Your task to perform on an android device: toggle wifi Image 0: 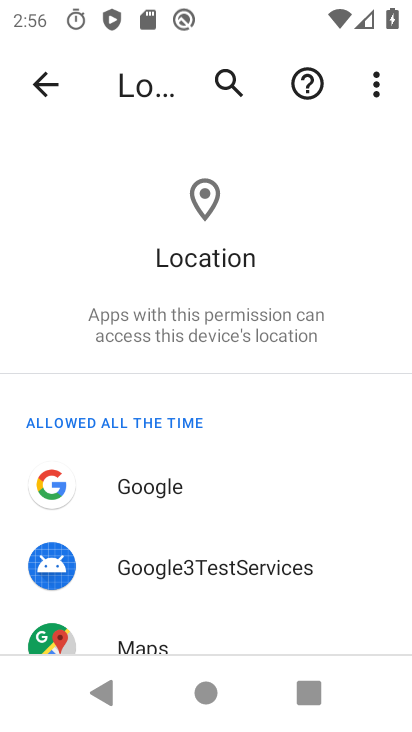
Step 0: press home button
Your task to perform on an android device: toggle wifi Image 1: 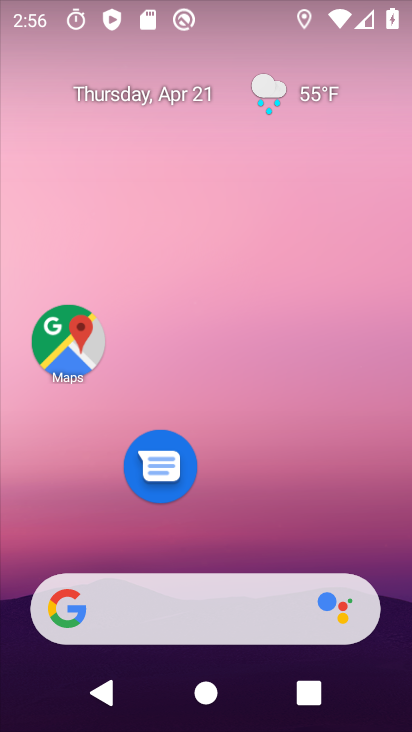
Step 1: drag from (278, 587) to (254, 13)
Your task to perform on an android device: toggle wifi Image 2: 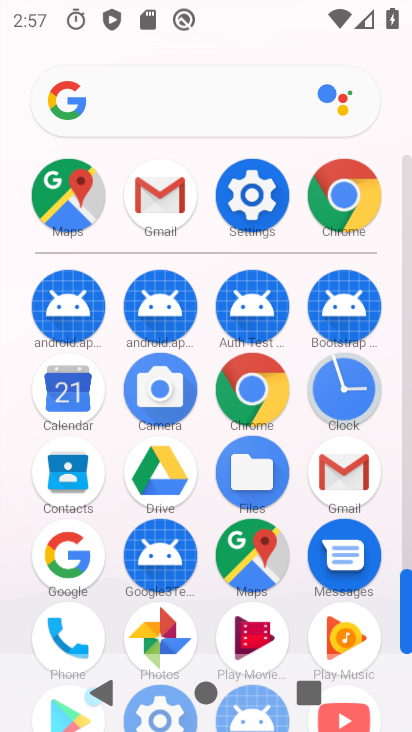
Step 2: click (248, 211)
Your task to perform on an android device: toggle wifi Image 3: 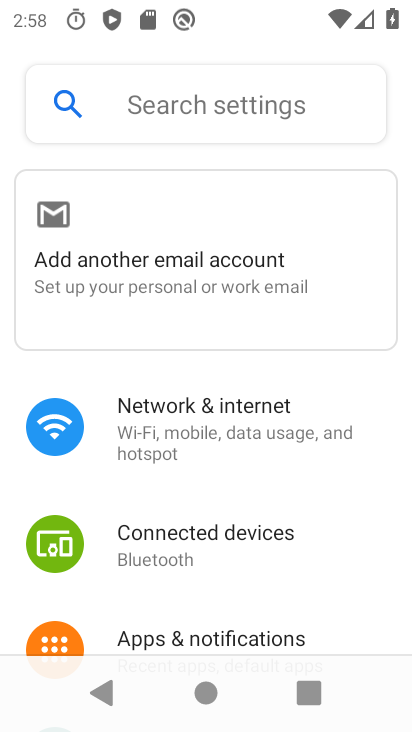
Step 3: click (286, 410)
Your task to perform on an android device: toggle wifi Image 4: 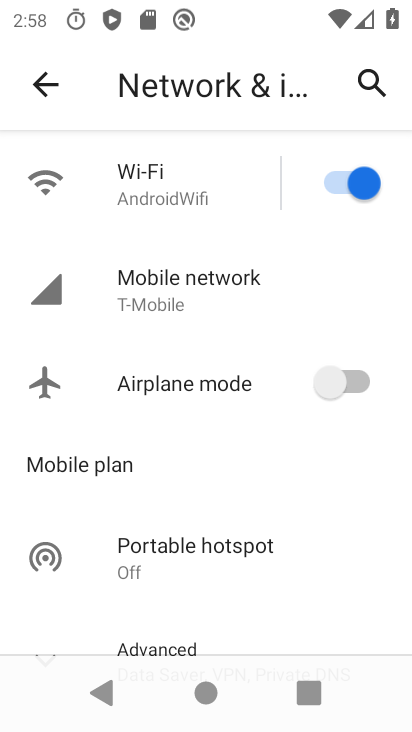
Step 4: click (337, 185)
Your task to perform on an android device: toggle wifi Image 5: 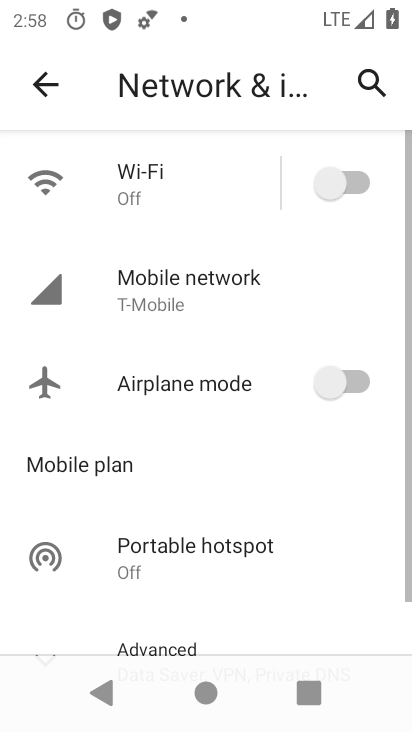
Step 5: task complete